Your task to perform on an android device: Open Yahoo.com Image 0: 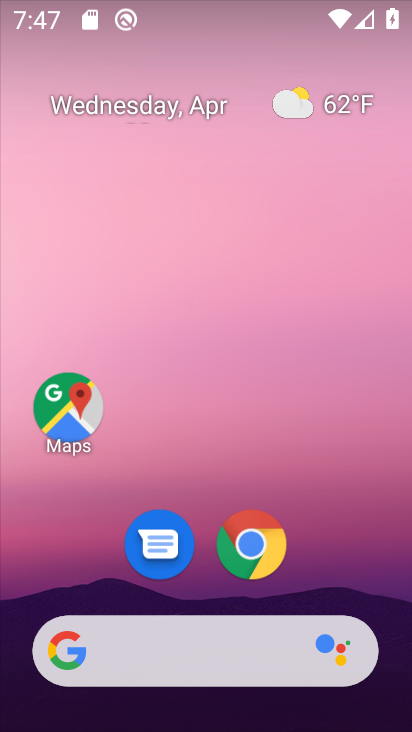
Step 0: click (263, 546)
Your task to perform on an android device: Open Yahoo.com Image 1: 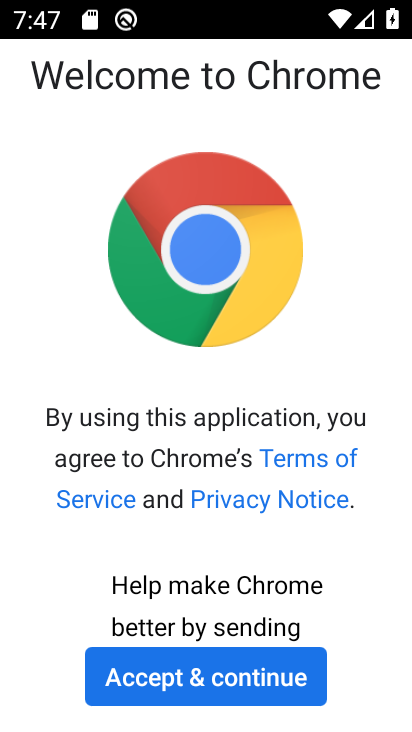
Step 1: click (245, 680)
Your task to perform on an android device: Open Yahoo.com Image 2: 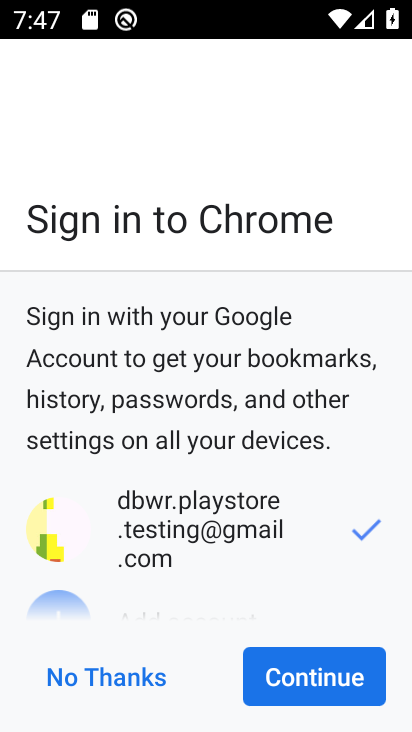
Step 2: click (275, 677)
Your task to perform on an android device: Open Yahoo.com Image 3: 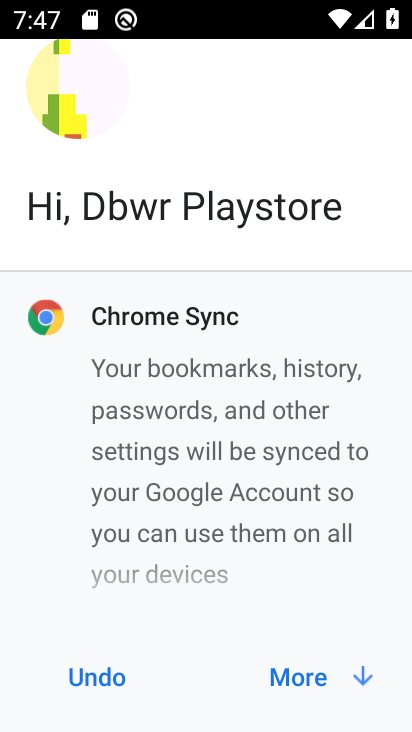
Step 3: click (319, 676)
Your task to perform on an android device: Open Yahoo.com Image 4: 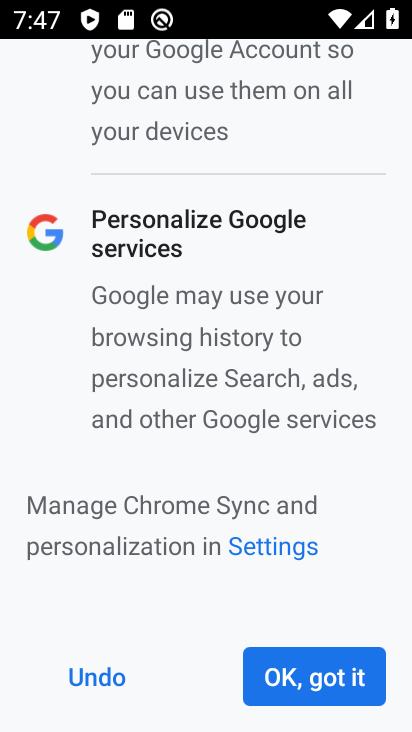
Step 4: click (318, 676)
Your task to perform on an android device: Open Yahoo.com Image 5: 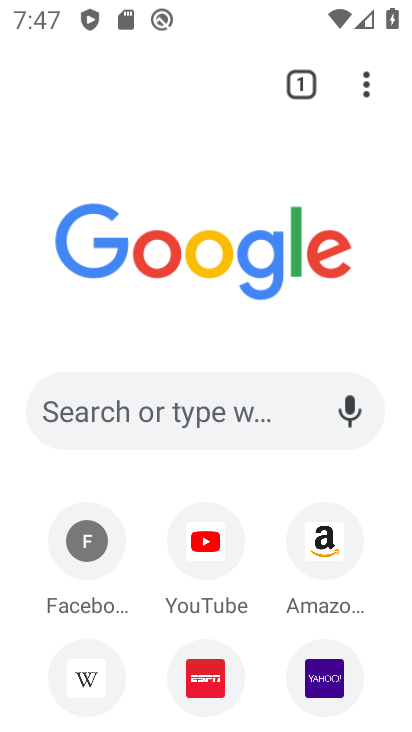
Step 5: click (328, 682)
Your task to perform on an android device: Open Yahoo.com Image 6: 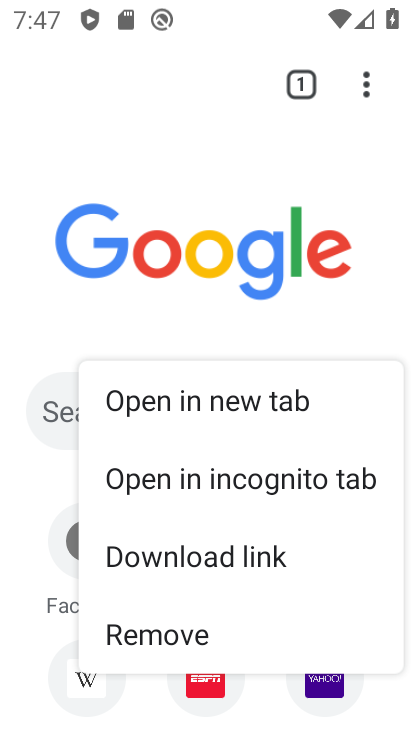
Step 6: click (328, 683)
Your task to perform on an android device: Open Yahoo.com Image 7: 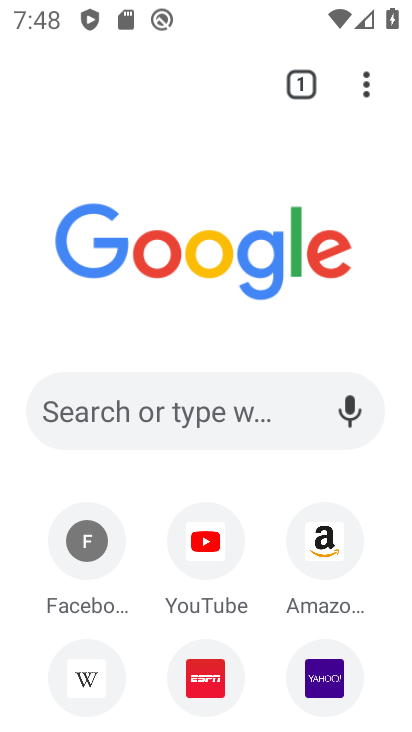
Step 7: drag from (266, 640) to (263, 327)
Your task to perform on an android device: Open Yahoo.com Image 8: 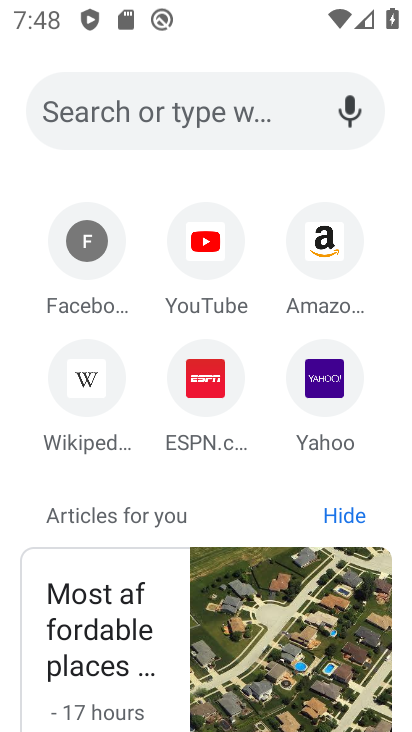
Step 8: click (330, 381)
Your task to perform on an android device: Open Yahoo.com Image 9: 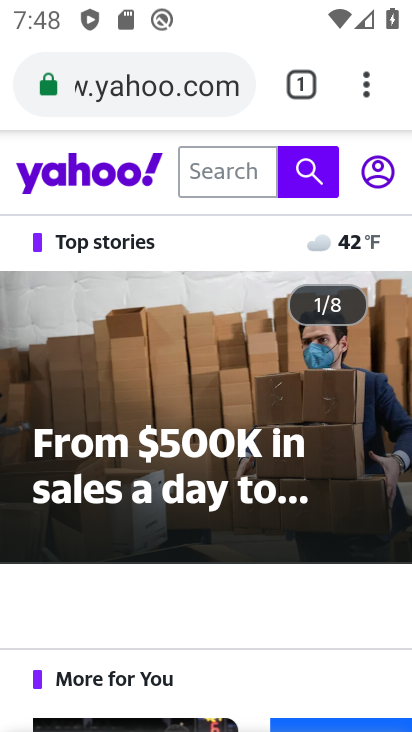
Step 9: task complete